Your task to perform on an android device: turn notification dots on Image 0: 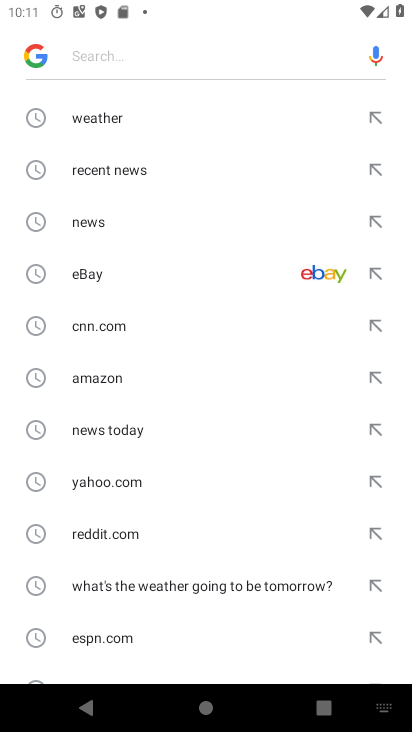
Step 0: press home button
Your task to perform on an android device: turn notification dots on Image 1: 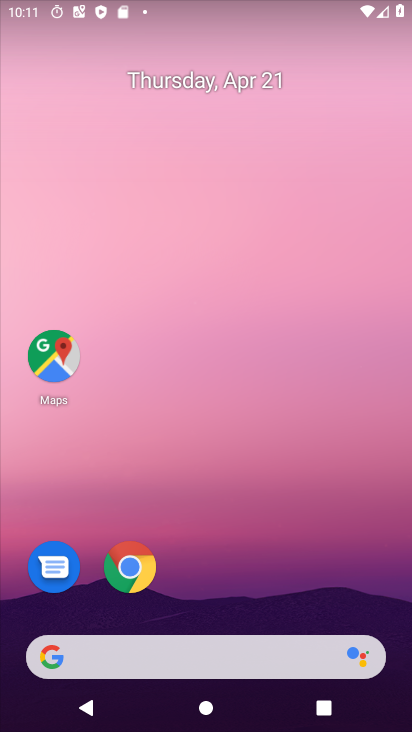
Step 1: drag from (191, 582) to (313, 27)
Your task to perform on an android device: turn notification dots on Image 2: 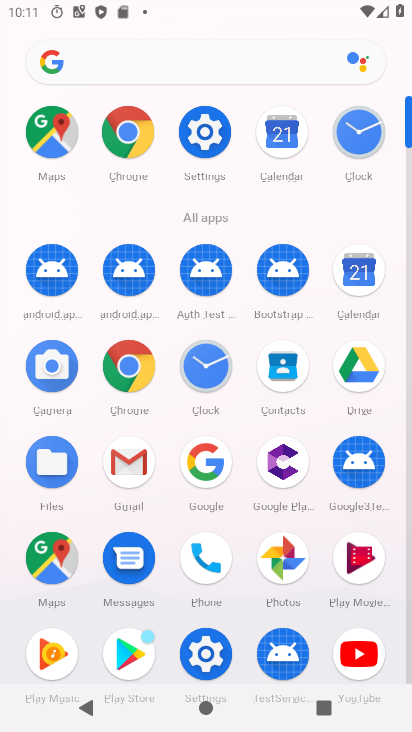
Step 2: click (197, 166)
Your task to perform on an android device: turn notification dots on Image 3: 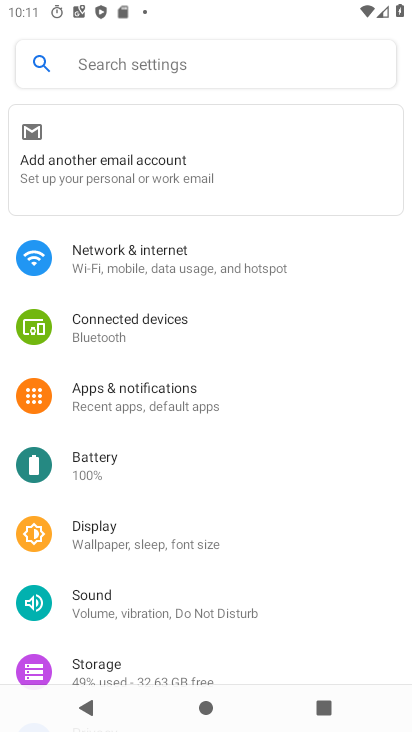
Step 3: click (150, 395)
Your task to perform on an android device: turn notification dots on Image 4: 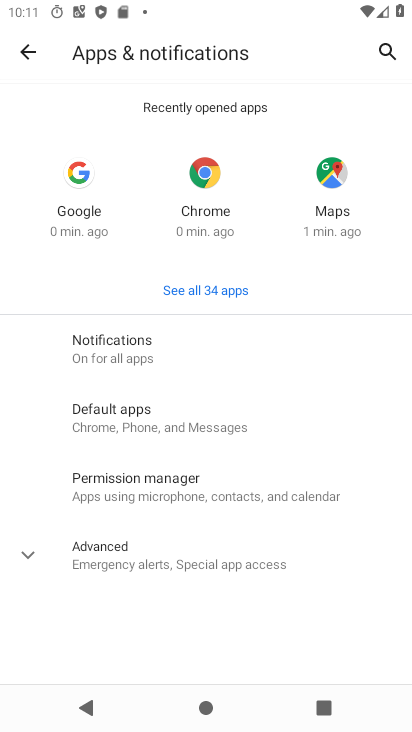
Step 4: click (142, 352)
Your task to perform on an android device: turn notification dots on Image 5: 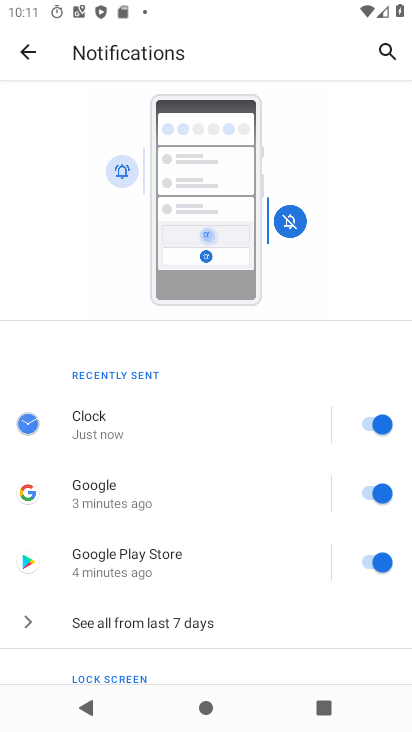
Step 5: drag from (138, 579) to (243, 163)
Your task to perform on an android device: turn notification dots on Image 6: 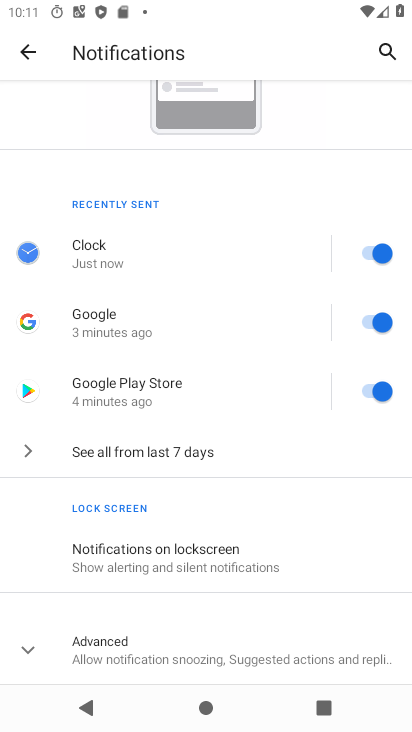
Step 6: click (132, 645)
Your task to perform on an android device: turn notification dots on Image 7: 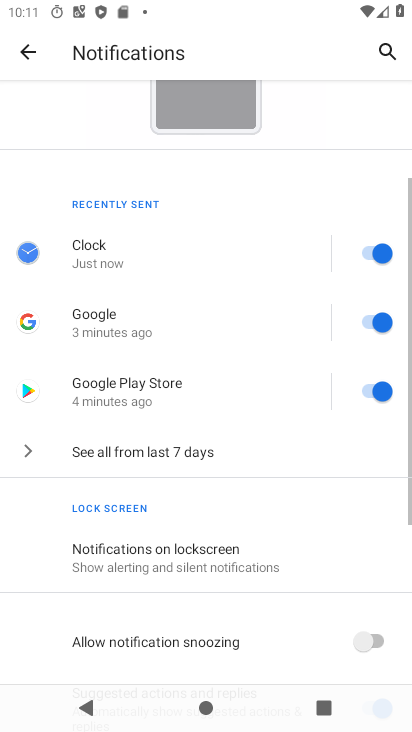
Step 7: task complete